Your task to perform on an android device: toggle pop-ups in chrome Image 0: 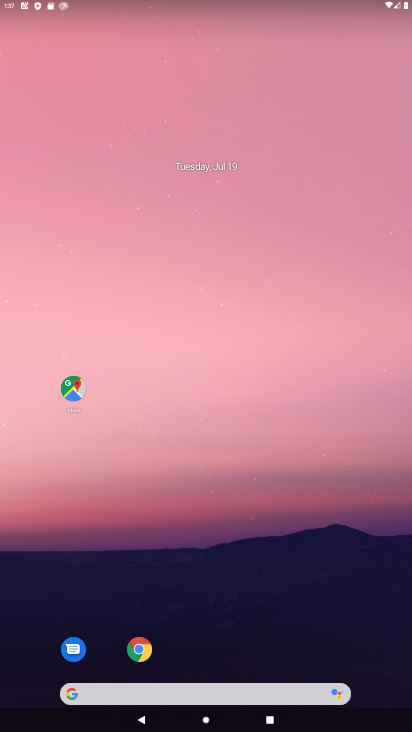
Step 0: click (138, 650)
Your task to perform on an android device: toggle pop-ups in chrome Image 1: 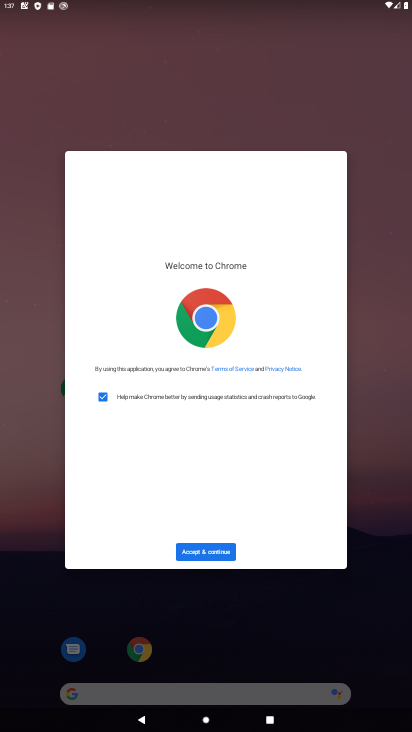
Step 1: click (202, 553)
Your task to perform on an android device: toggle pop-ups in chrome Image 2: 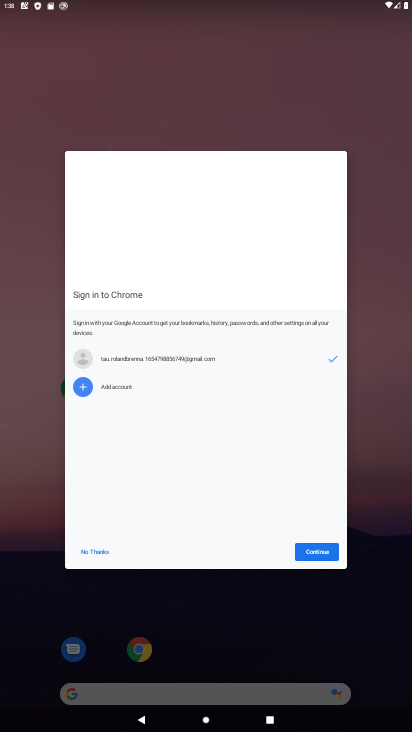
Step 2: click (308, 554)
Your task to perform on an android device: toggle pop-ups in chrome Image 3: 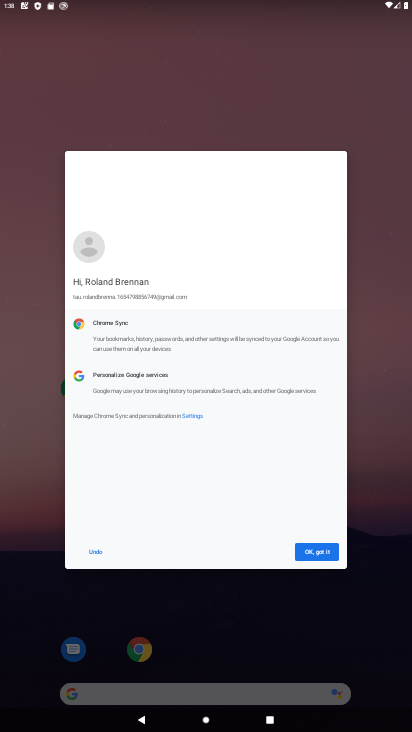
Step 3: click (317, 559)
Your task to perform on an android device: toggle pop-ups in chrome Image 4: 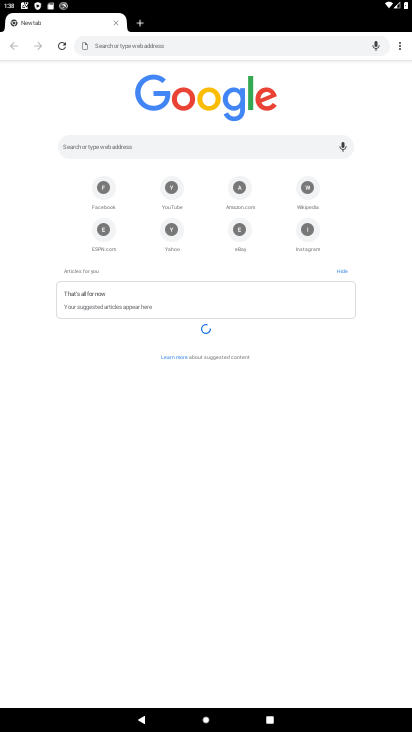
Step 4: task complete